Your task to perform on an android device: Show me the alarms in the clock app Image 0: 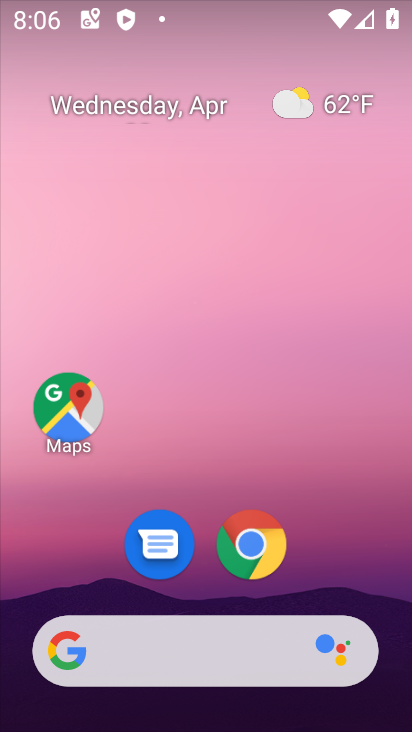
Step 0: drag from (339, 587) to (281, 162)
Your task to perform on an android device: Show me the alarms in the clock app Image 1: 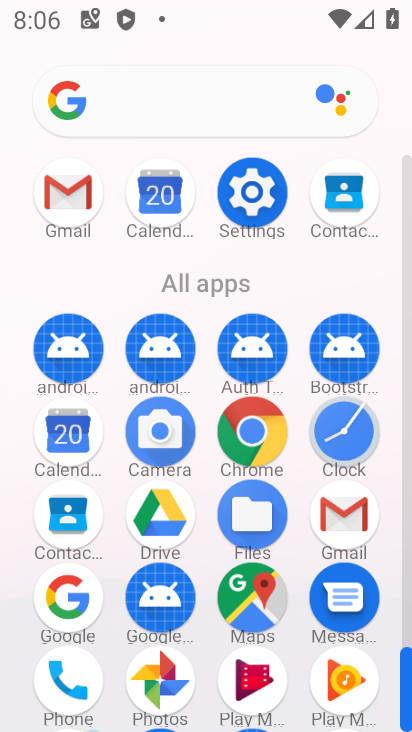
Step 1: click (337, 438)
Your task to perform on an android device: Show me the alarms in the clock app Image 2: 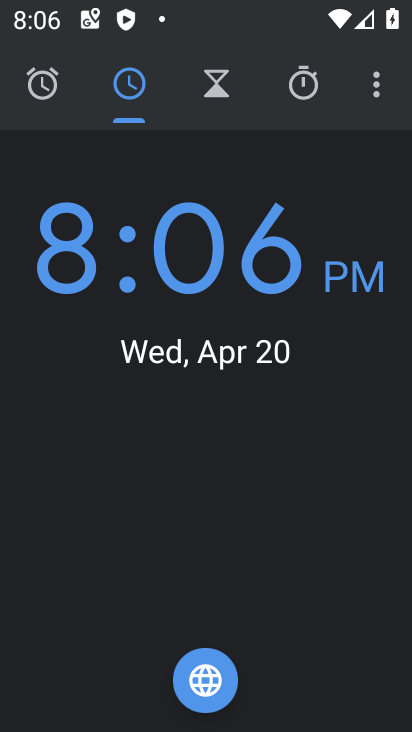
Step 2: click (37, 88)
Your task to perform on an android device: Show me the alarms in the clock app Image 3: 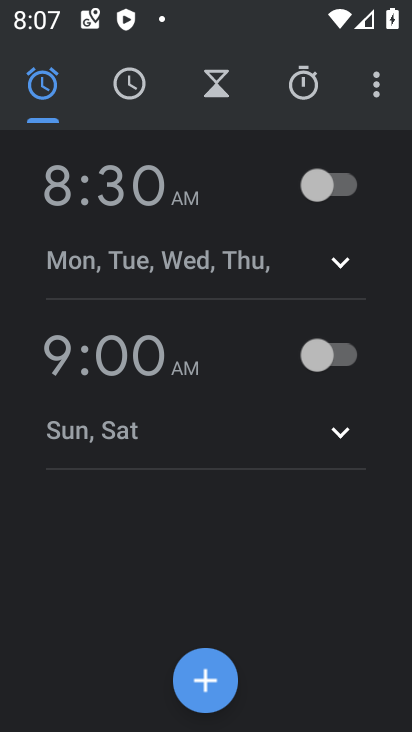
Step 3: task complete